Your task to perform on an android device: What's the weather today? Image 0: 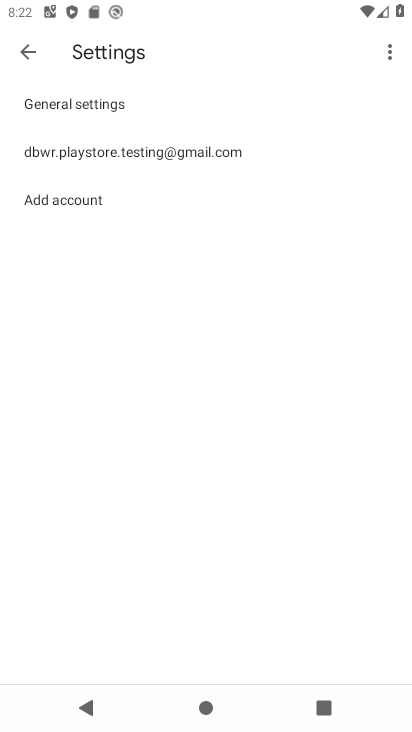
Step 0: press home button
Your task to perform on an android device: What's the weather today? Image 1: 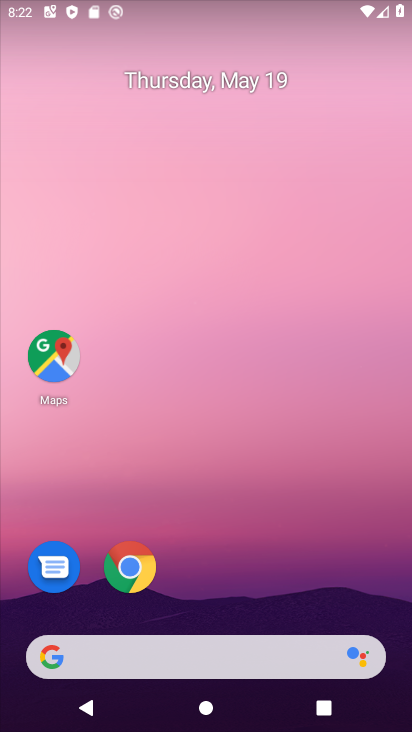
Step 1: click (192, 656)
Your task to perform on an android device: What's the weather today? Image 2: 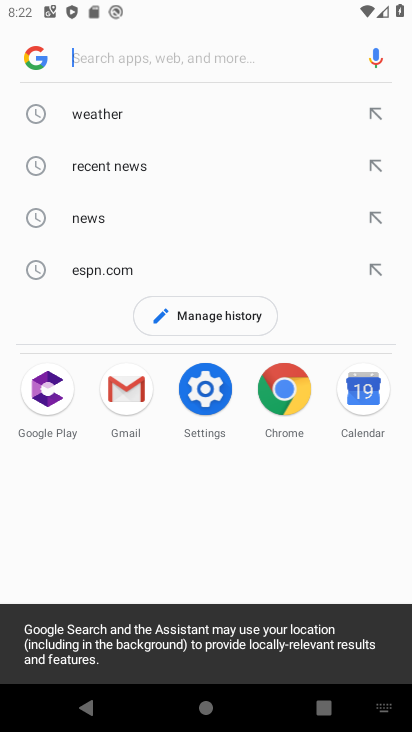
Step 2: click (125, 113)
Your task to perform on an android device: What's the weather today? Image 3: 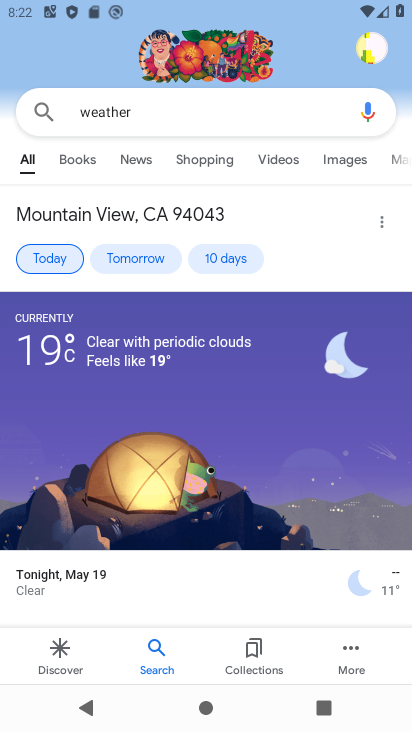
Step 3: task complete